Your task to perform on an android device: Go to CNN.com Image 0: 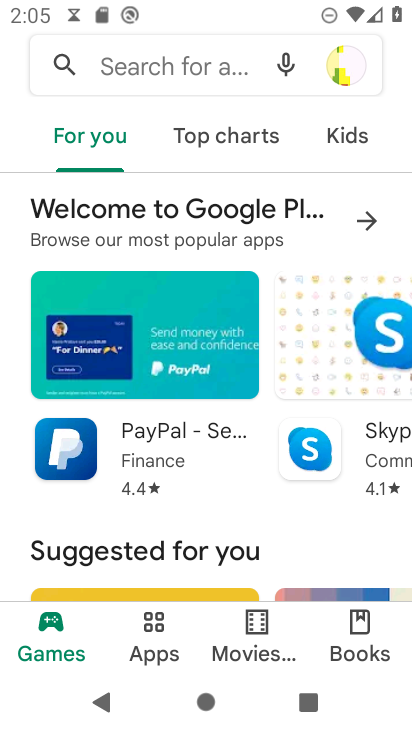
Step 0: press home button
Your task to perform on an android device: Go to CNN.com Image 1: 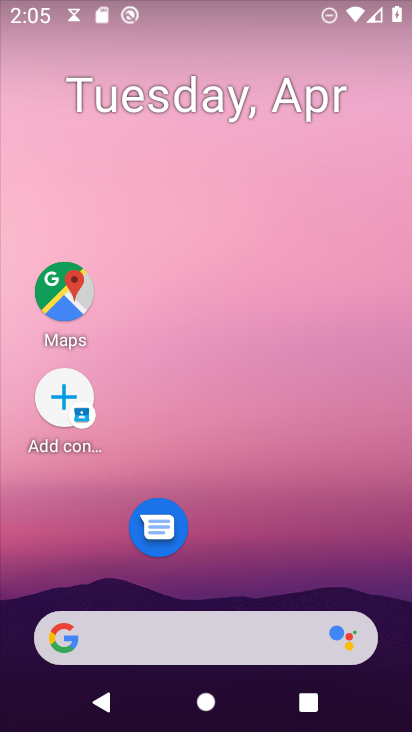
Step 1: drag from (263, 585) to (324, 79)
Your task to perform on an android device: Go to CNN.com Image 2: 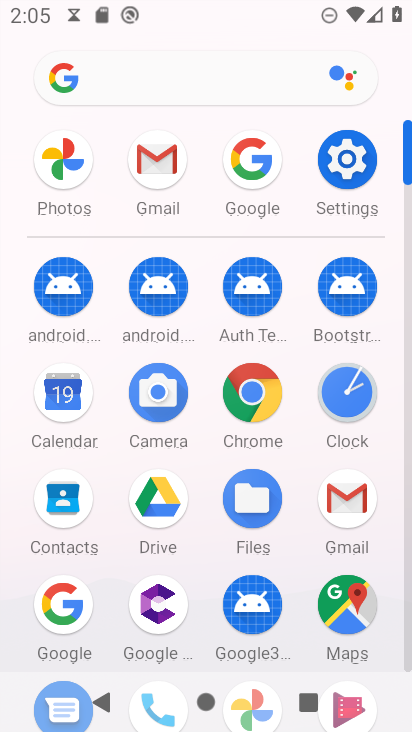
Step 2: click (252, 391)
Your task to perform on an android device: Go to CNN.com Image 3: 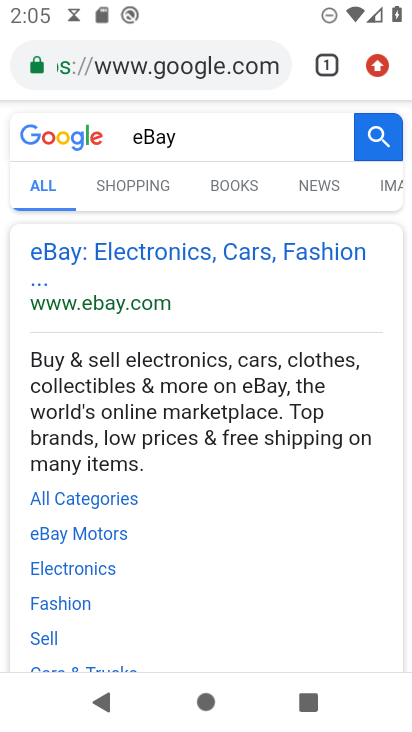
Step 3: click (246, 66)
Your task to perform on an android device: Go to CNN.com Image 4: 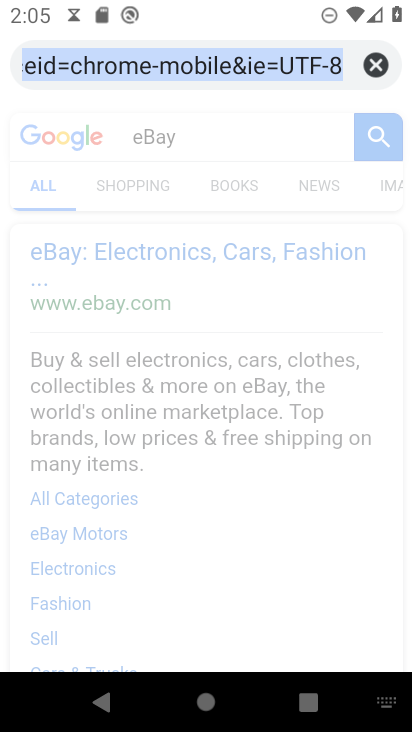
Step 4: click (375, 70)
Your task to perform on an android device: Go to CNN.com Image 5: 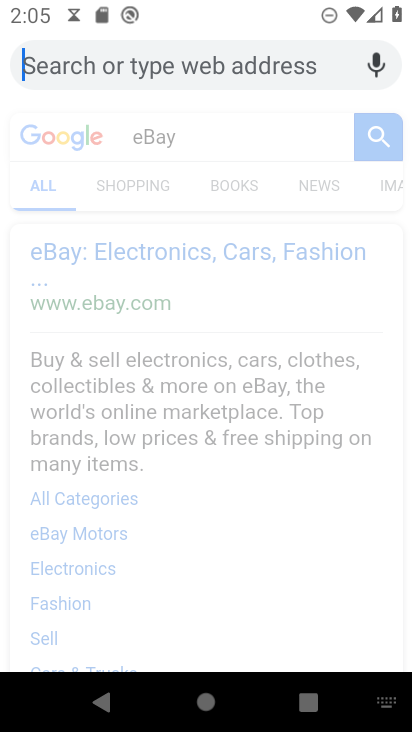
Step 5: click (315, 79)
Your task to perform on an android device: Go to CNN.com Image 6: 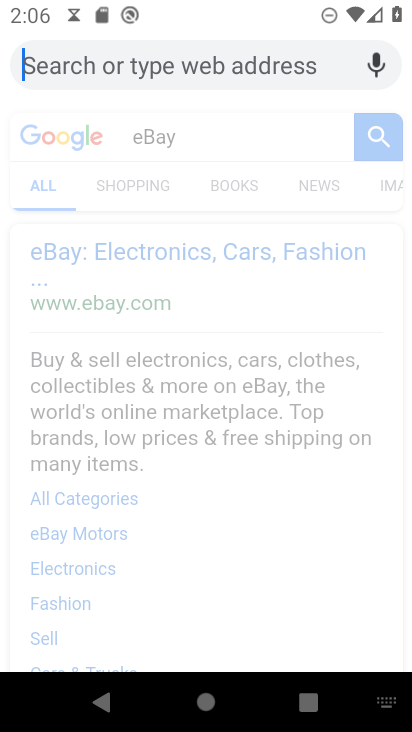
Step 6: type "CNN.com"
Your task to perform on an android device: Go to CNN.com Image 7: 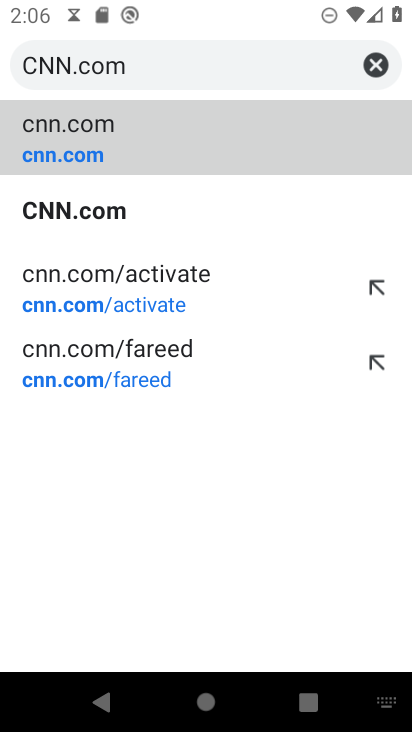
Step 7: click (81, 210)
Your task to perform on an android device: Go to CNN.com Image 8: 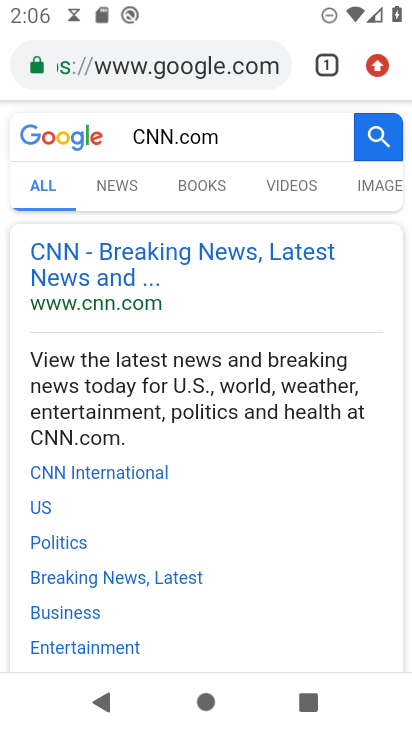
Step 8: task complete